Your task to perform on an android device: turn off priority inbox in the gmail app Image 0: 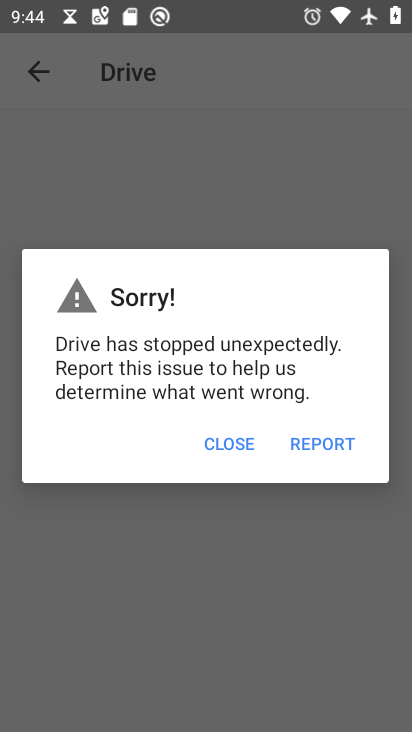
Step 0: press home button
Your task to perform on an android device: turn off priority inbox in the gmail app Image 1: 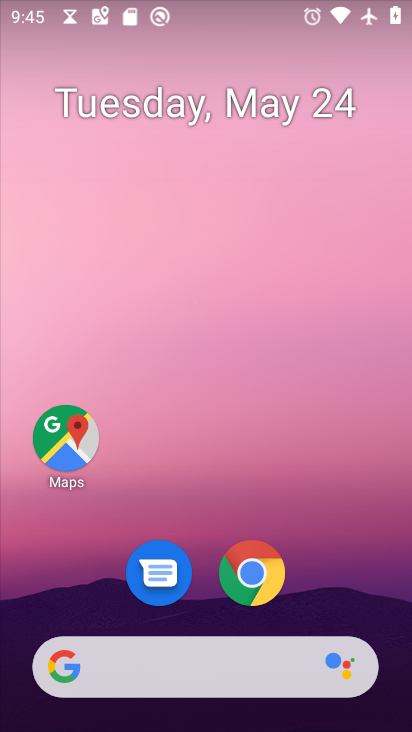
Step 1: drag from (382, 561) to (293, 13)
Your task to perform on an android device: turn off priority inbox in the gmail app Image 2: 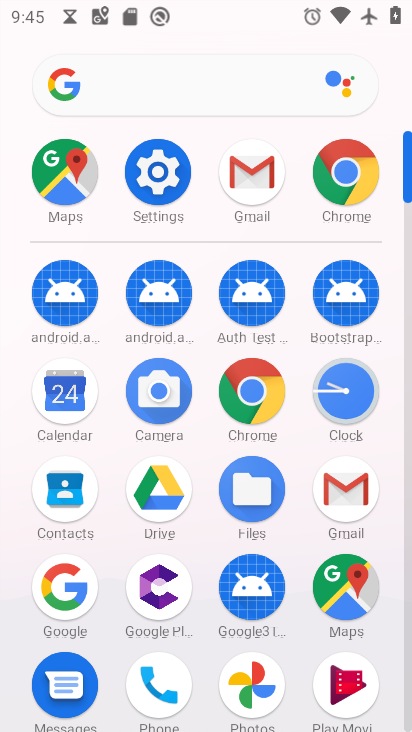
Step 2: click (356, 505)
Your task to perform on an android device: turn off priority inbox in the gmail app Image 3: 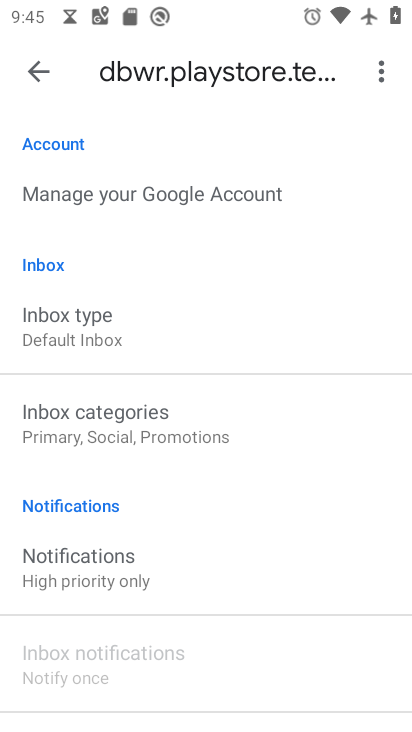
Step 3: click (89, 338)
Your task to perform on an android device: turn off priority inbox in the gmail app Image 4: 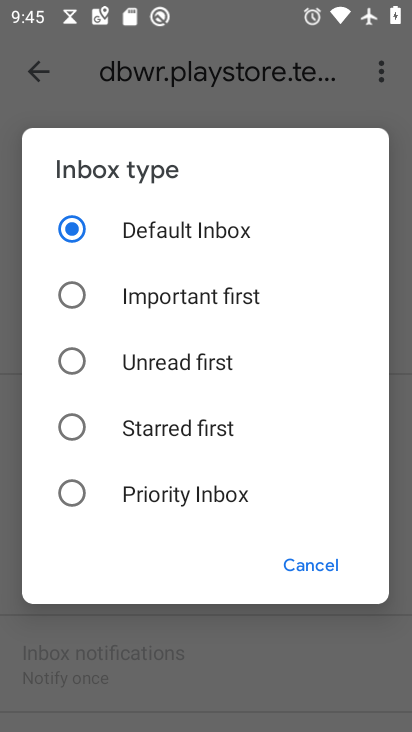
Step 4: click (123, 497)
Your task to perform on an android device: turn off priority inbox in the gmail app Image 5: 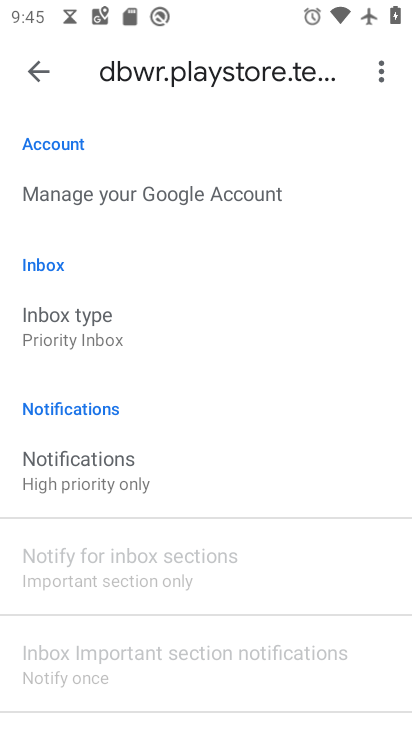
Step 5: task complete